Your task to perform on an android device: Open CNN.com Image 0: 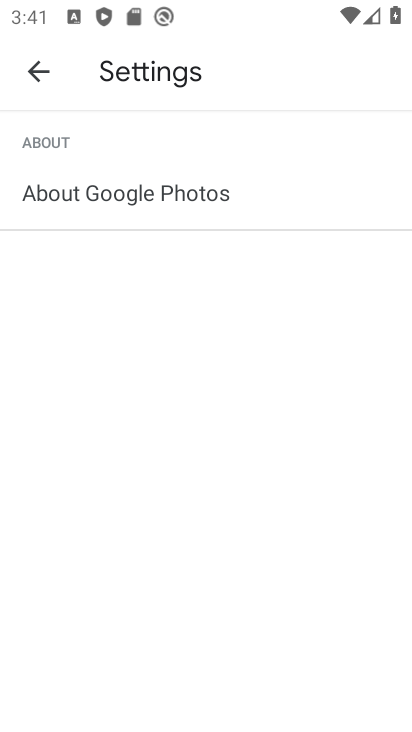
Step 0: press home button
Your task to perform on an android device: Open CNN.com Image 1: 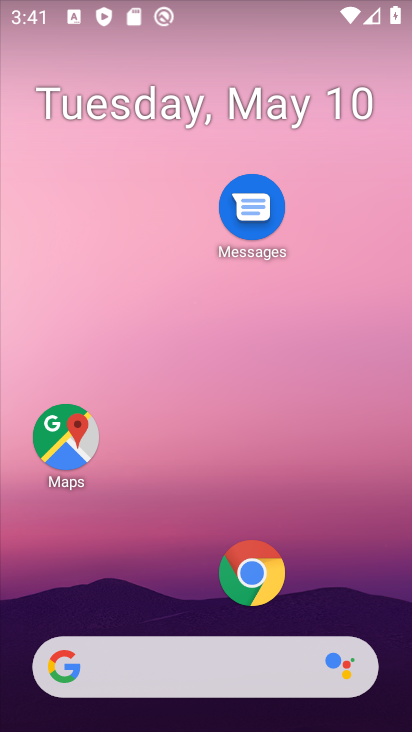
Step 1: click (239, 589)
Your task to perform on an android device: Open CNN.com Image 2: 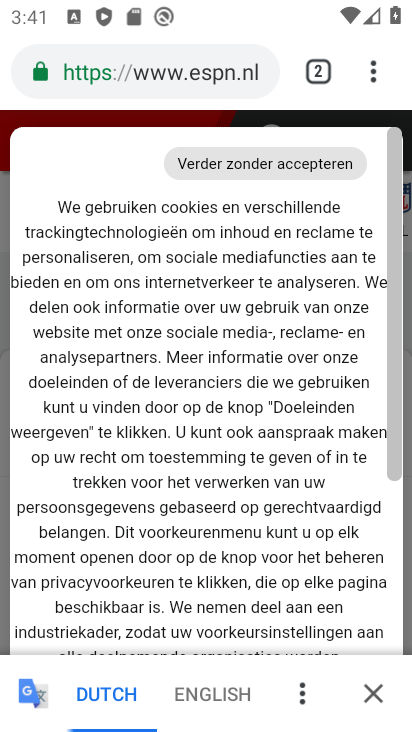
Step 2: click (320, 82)
Your task to perform on an android device: Open CNN.com Image 3: 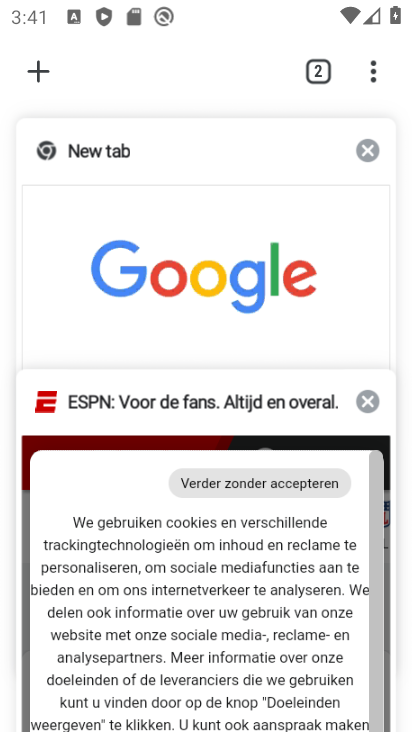
Step 3: click (29, 77)
Your task to perform on an android device: Open CNN.com Image 4: 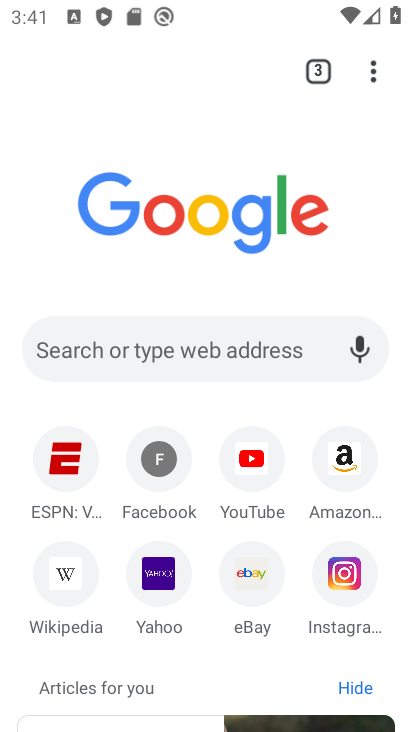
Step 4: click (140, 350)
Your task to perform on an android device: Open CNN.com Image 5: 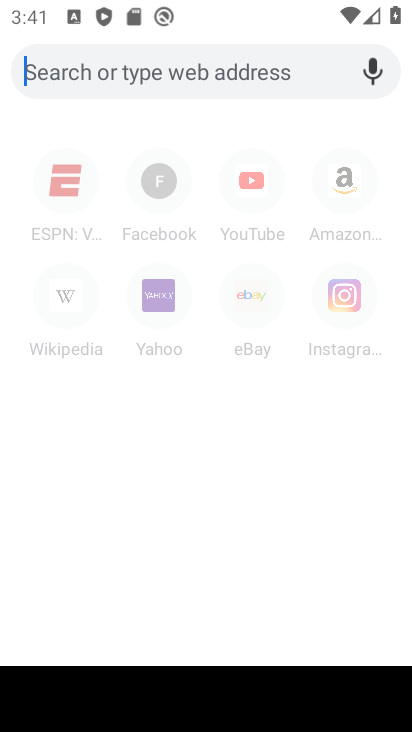
Step 5: type "CNN.com"
Your task to perform on an android device: Open CNN.com Image 6: 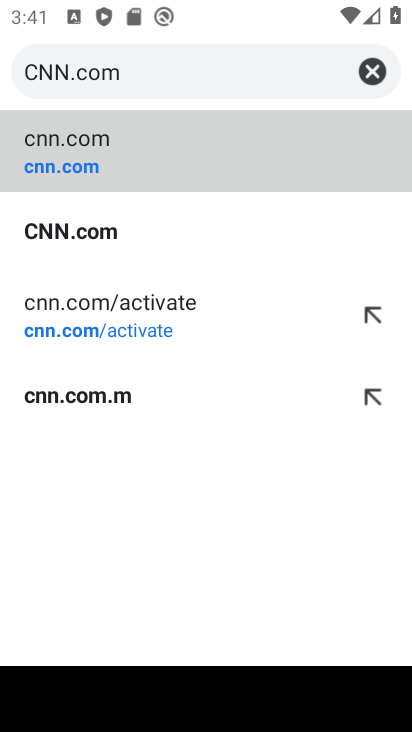
Step 6: click (140, 170)
Your task to perform on an android device: Open CNN.com Image 7: 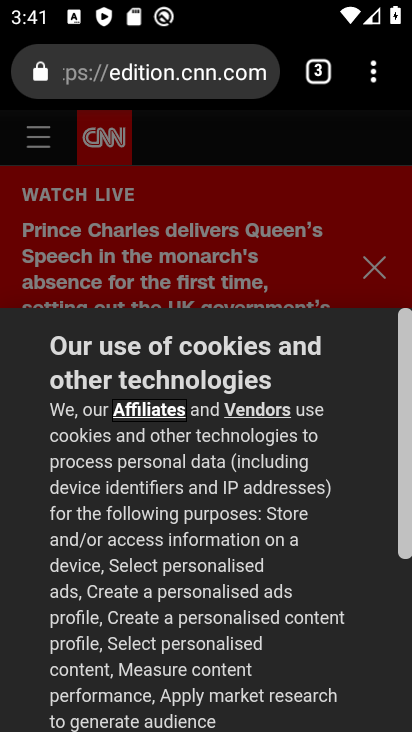
Step 7: task complete